Your task to perform on an android device: add a contact in the contacts app Image 0: 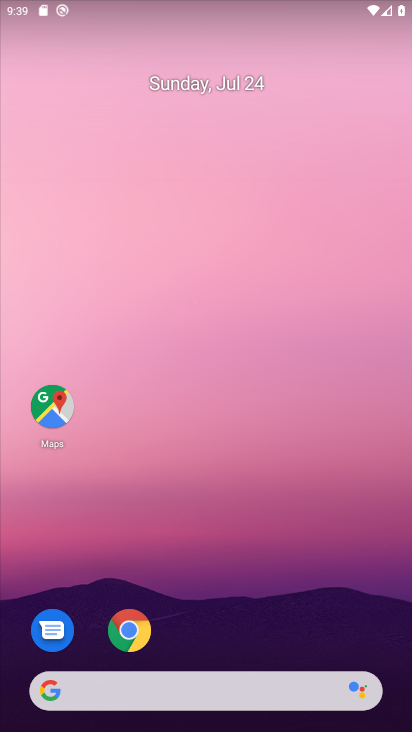
Step 0: drag from (268, 593) to (259, 86)
Your task to perform on an android device: add a contact in the contacts app Image 1: 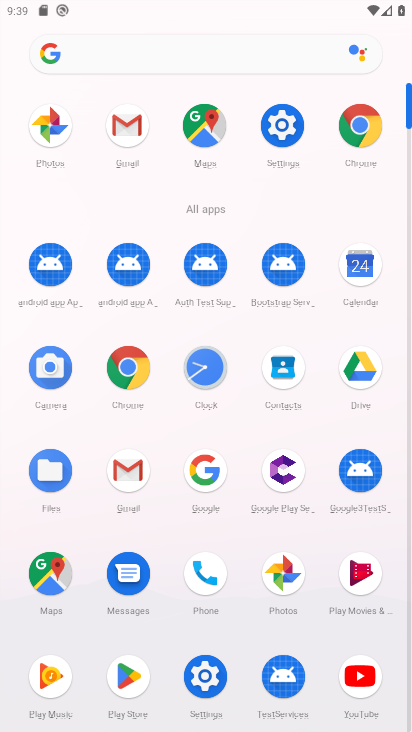
Step 1: click (207, 565)
Your task to perform on an android device: add a contact in the contacts app Image 2: 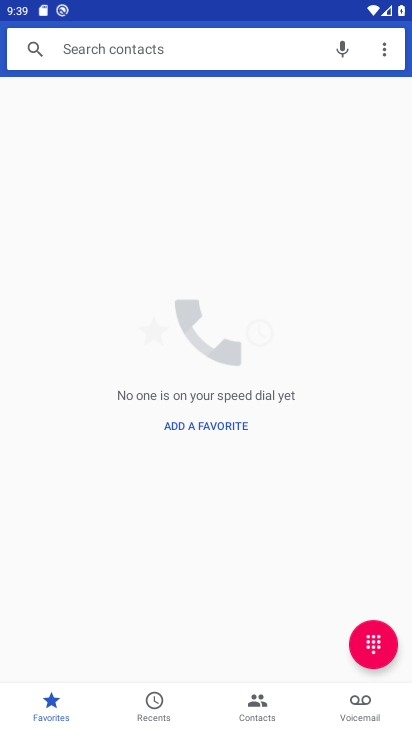
Step 2: click (207, 429)
Your task to perform on an android device: add a contact in the contacts app Image 3: 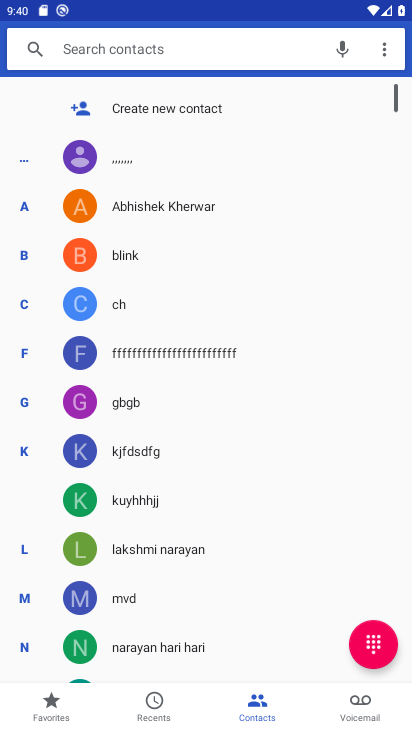
Step 3: click (147, 110)
Your task to perform on an android device: add a contact in the contacts app Image 4: 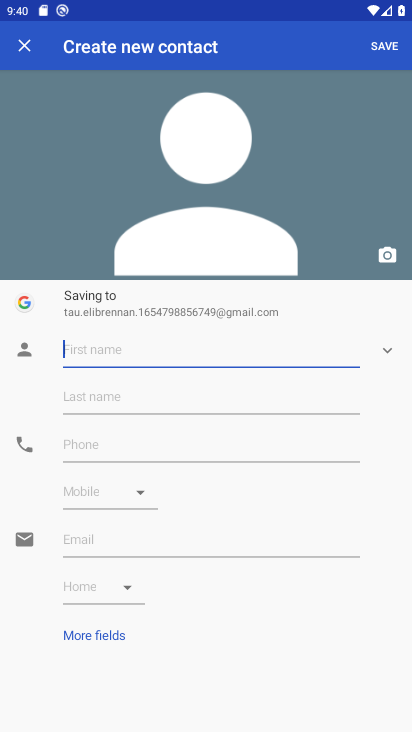
Step 4: click (139, 347)
Your task to perform on an android device: add a contact in the contacts app Image 5: 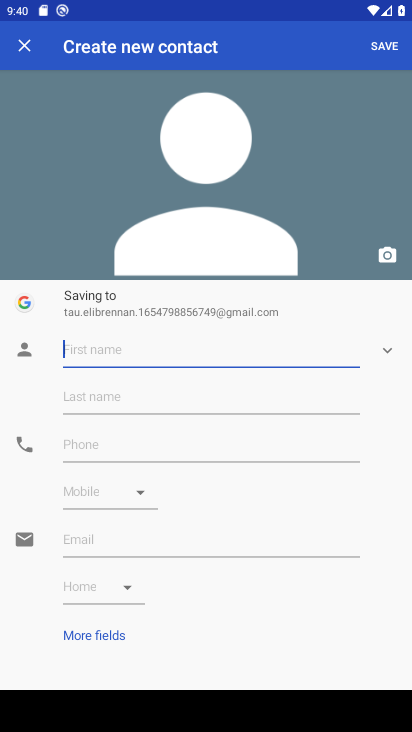
Step 5: type "rajeev "
Your task to perform on an android device: add a contact in the contacts app Image 6: 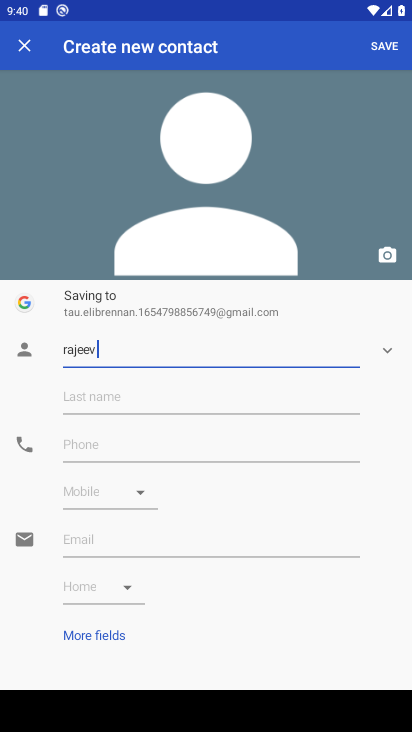
Step 6: click (198, 448)
Your task to perform on an android device: add a contact in the contacts app Image 7: 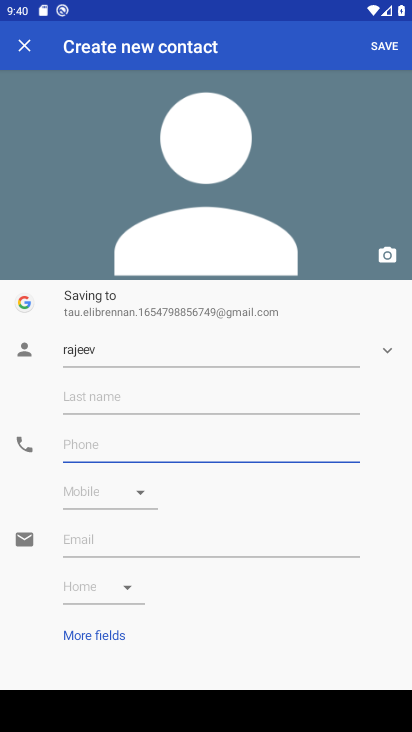
Step 7: type "98999898989898989 "
Your task to perform on an android device: add a contact in the contacts app Image 8: 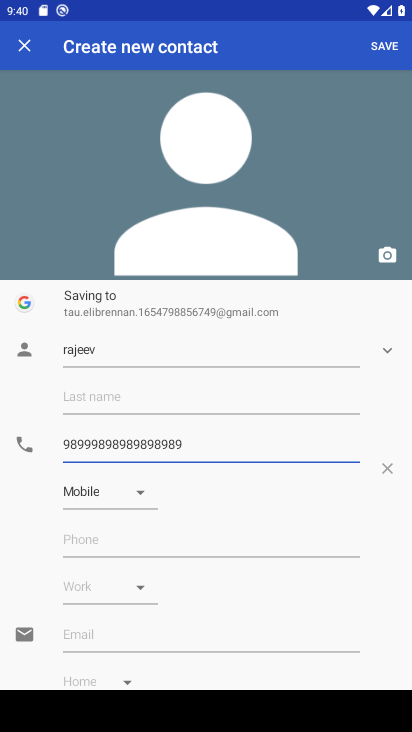
Step 8: click (381, 39)
Your task to perform on an android device: add a contact in the contacts app Image 9: 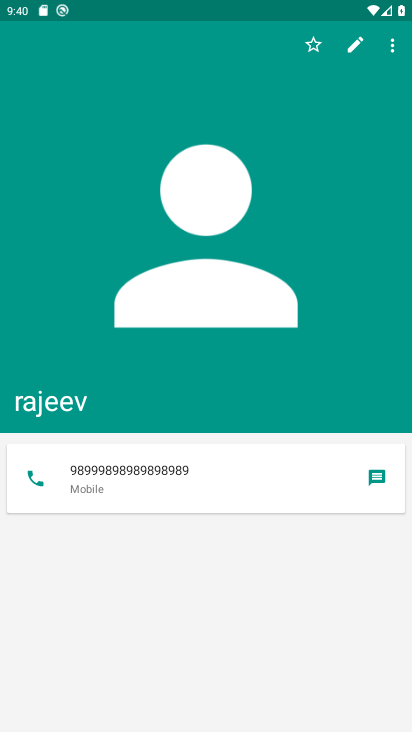
Step 9: task complete